Your task to perform on an android device: Go to sound settings Image 0: 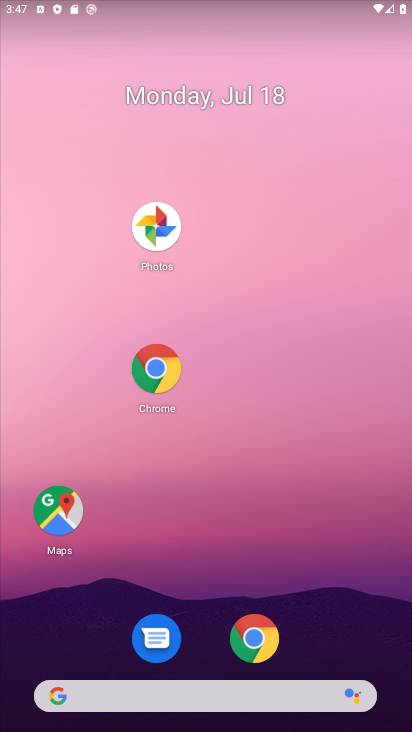
Step 0: drag from (321, 572) to (312, 144)
Your task to perform on an android device: Go to sound settings Image 1: 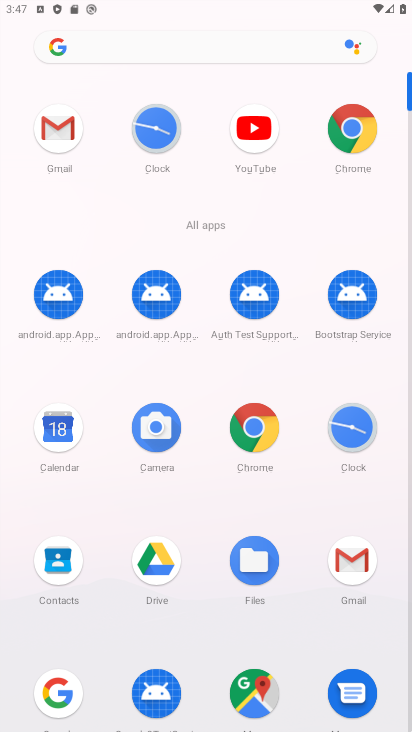
Step 1: drag from (178, 564) to (209, 277)
Your task to perform on an android device: Go to sound settings Image 2: 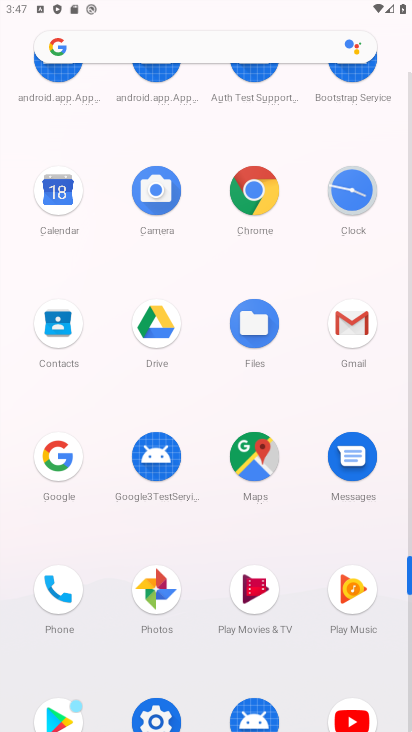
Step 2: drag from (137, 555) to (217, 226)
Your task to perform on an android device: Go to sound settings Image 3: 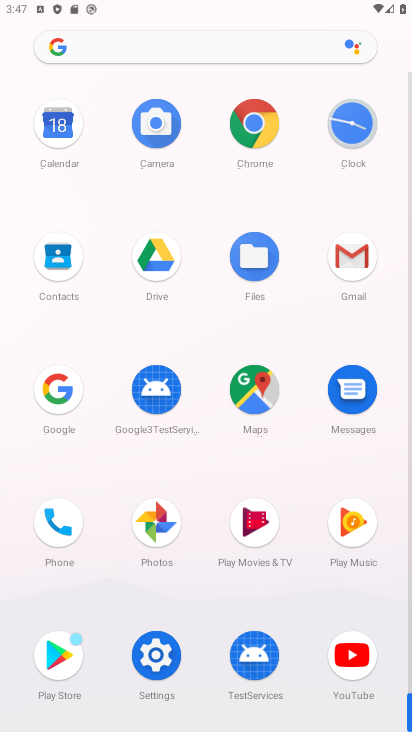
Step 3: drag from (163, 650) to (253, 286)
Your task to perform on an android device: Go to sound settings Image 4: 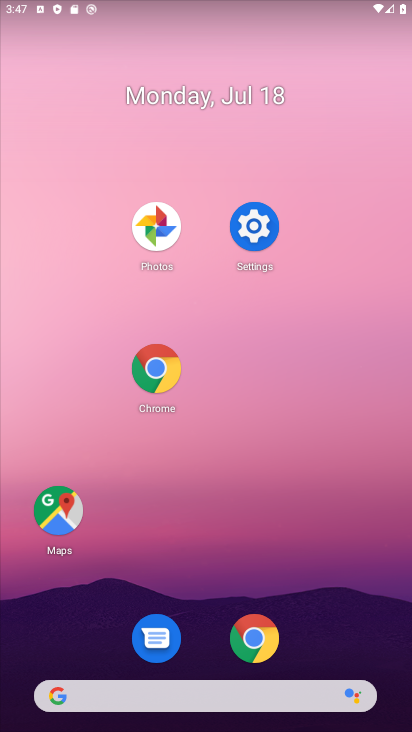
Step 4: click (264, 234)
Your task to perform on an android device: Go to sound settings Image 5: 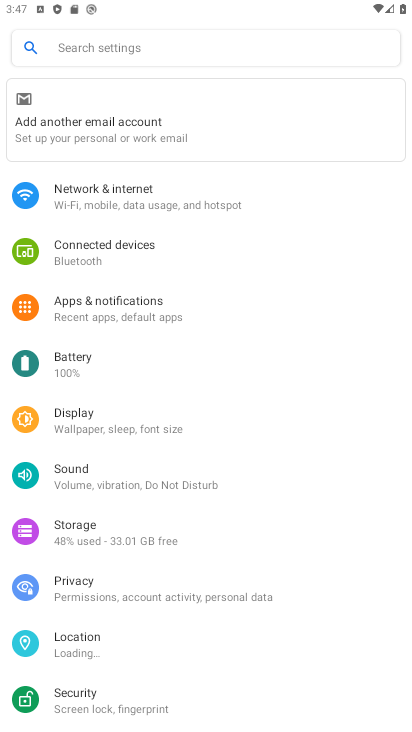
Step 5: click (133, 496)
Your task to perform on an android device: Go to sound settings Image 6: 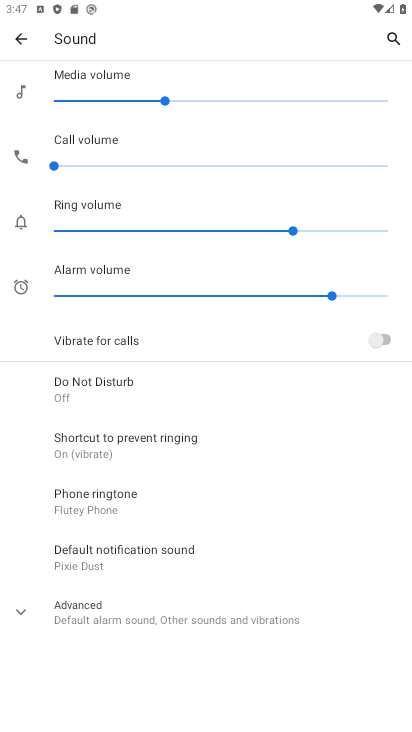
Step 6: task complete